Your task to perform on an android device: Open sound settings Image 0: 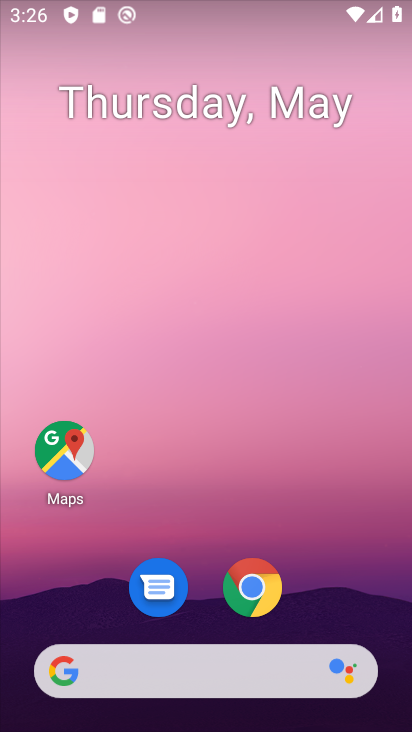
Step 0: drag from (361, 610) to (351, 160)
Your task to perform on an android device: Open sound settings Image 1: 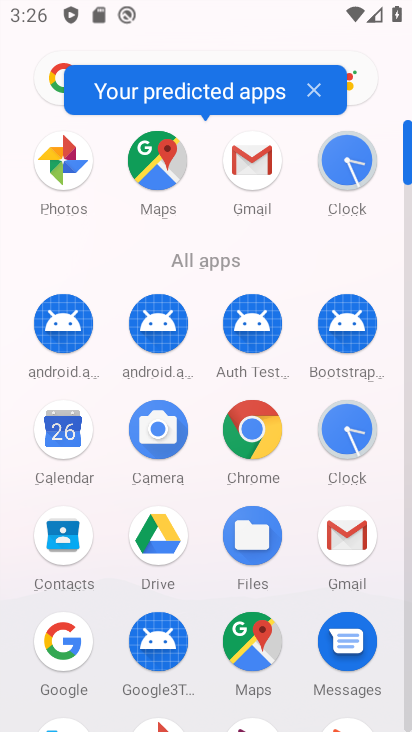
Step 1: drag from (208, 563) to (202, 302)
Your task to perform on an android device: Open sound settings Image 2: 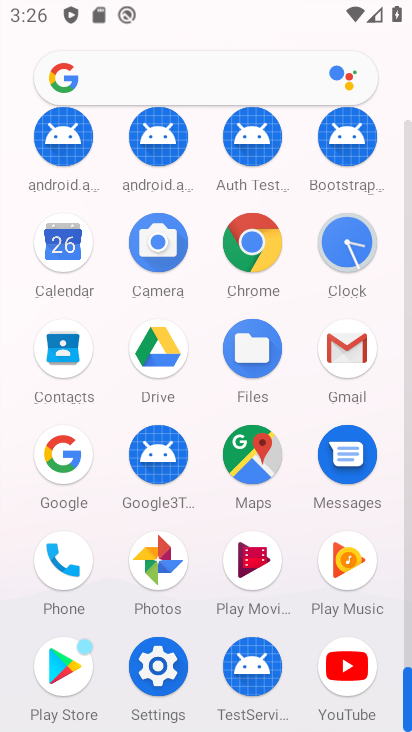
Step 2: click (172, 670)
Your task to perform on an android device: Open sound settings Image 3: 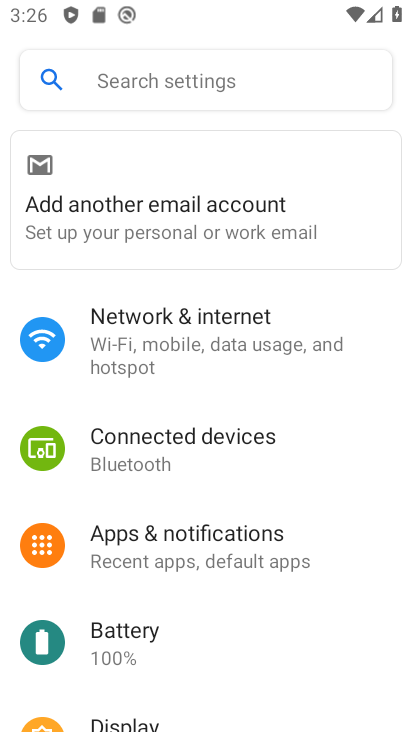
Step 3: drag from (356, 565) to (362, 477)
Your task to perform on an android device: Open sound settings Image 4: 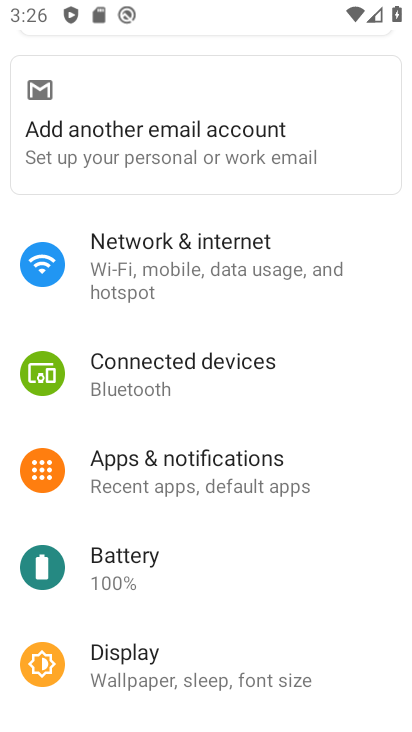
Step 4: drag from (359, 616) to (363, 480)
Your task to perform on an android device: Open sound settings Image 5: 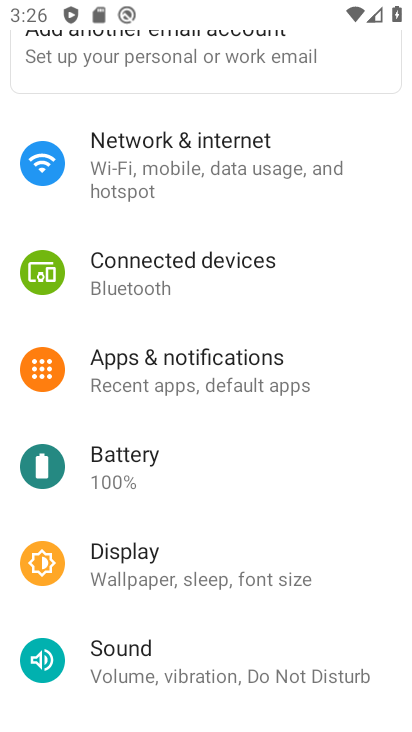
Step 5: drag from (357, 621) to (363, 463)
Your task to perform on an android device: Open sound settings Image 6: 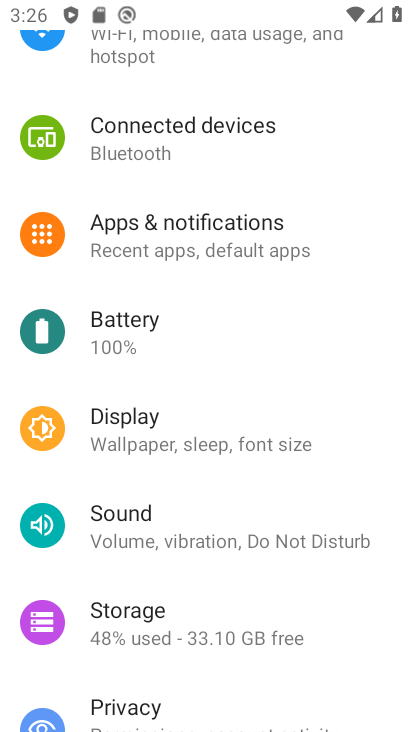
Step 6: drag from (377, 646) to (372, 457)
Your task to perform on an android device: Open sound settings Image 7: 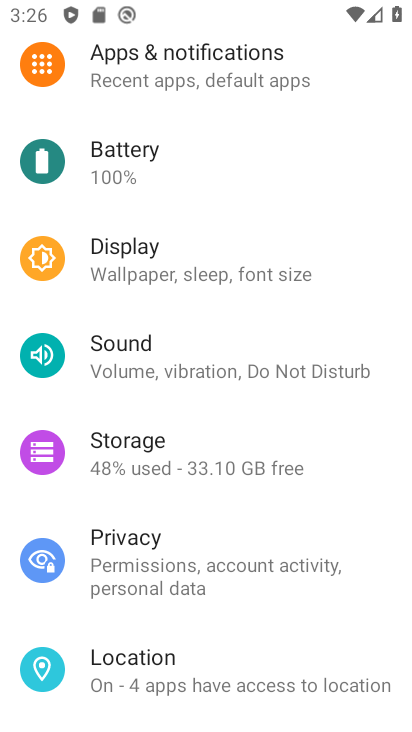
Step 7: drag from (365, 564) to (370, 389)
Your task to perform on an android device: Open sound settings Image 8: 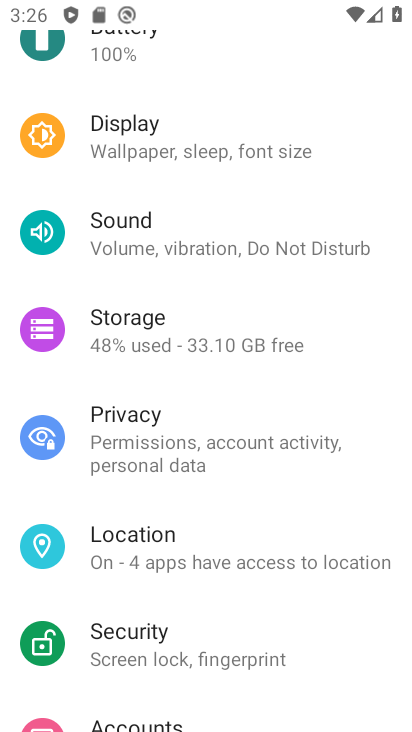
Step 8: click (278, 233)
Your task to perform on an android device: Open sound settings Image 9: 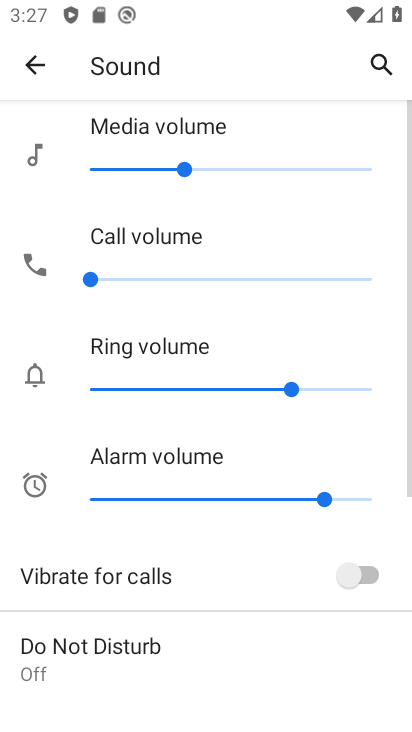
Step 9: task complete